Your task to perform on an android device: Check the news Image 0: 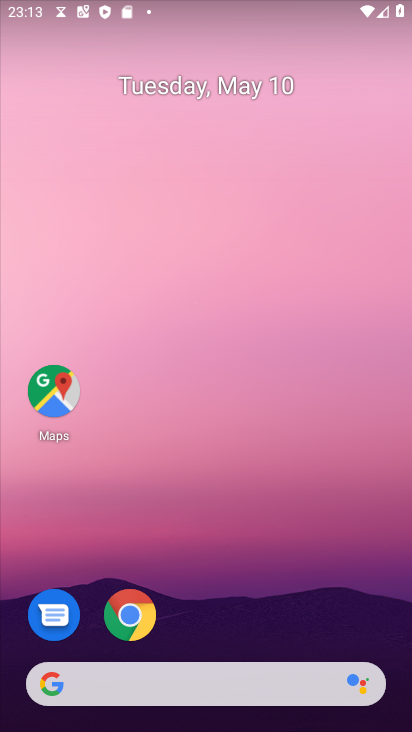
Step 0: drag from (231, 590) to (171, 127)
Your task to perform on an android device: Check the news Image 1: 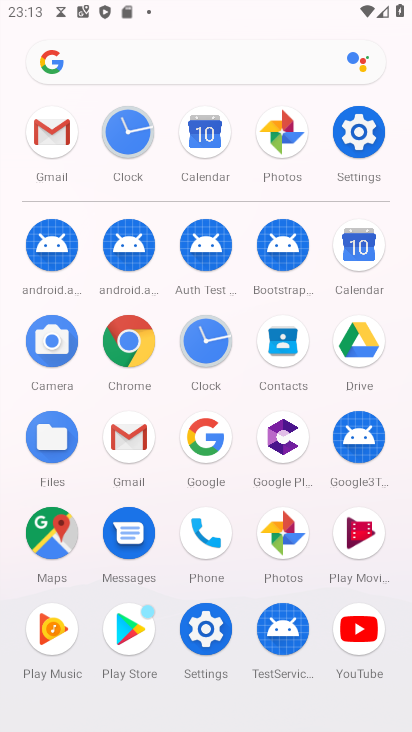
Step 1: click (198, 434)
Your task to perform on an android device: Check the news Image 2: 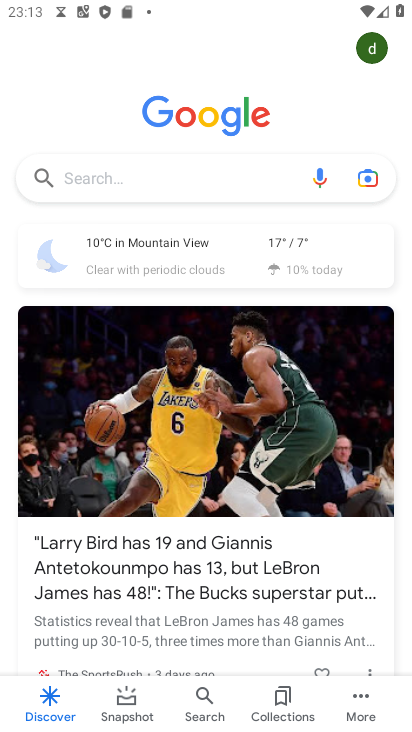
Step 2: click (160, 172)
Your task to perform on an android device: Check the news Image 3: 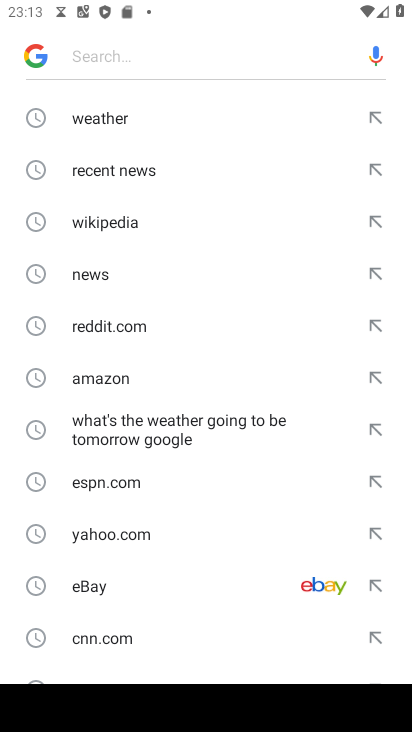
Step 3: click (82, 278)
Your task to perform on an android device: Check the news Image 4: 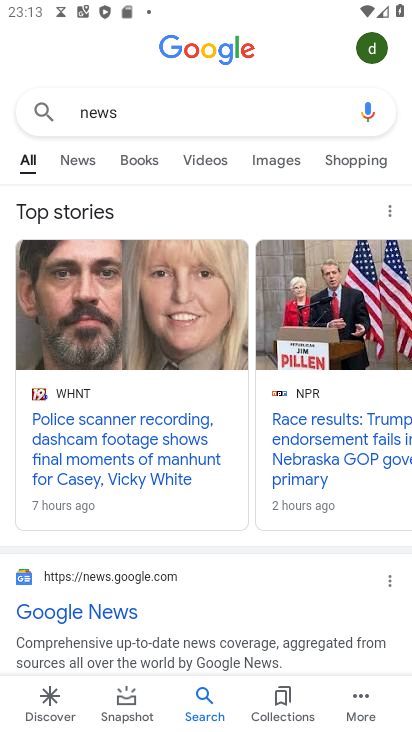
Step 4: task complete